Your task to perform on an android device: check android version Image 0: 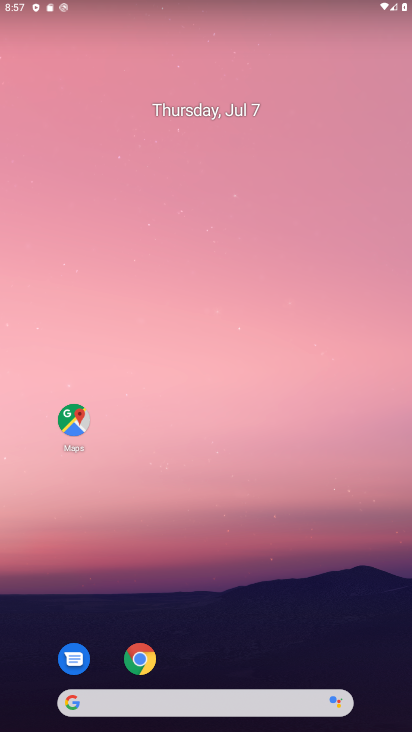
Step 0: drag from (209, 574) to (161, 5)
Your task to perform on an android device: check android version Image 1: 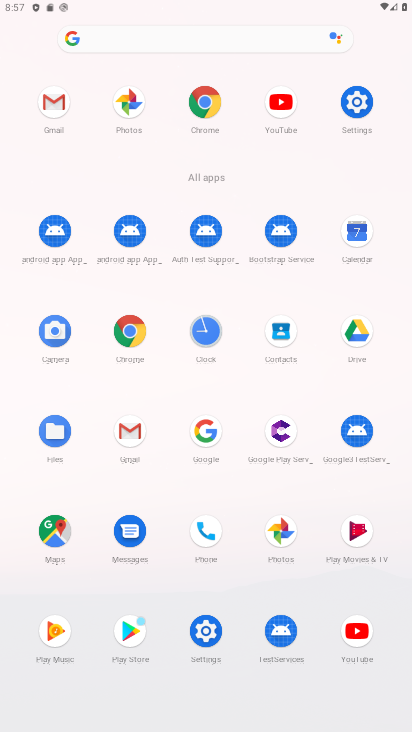
Step 1: click (206, 625)
Your task to perform on an android device: check android version Image 2: 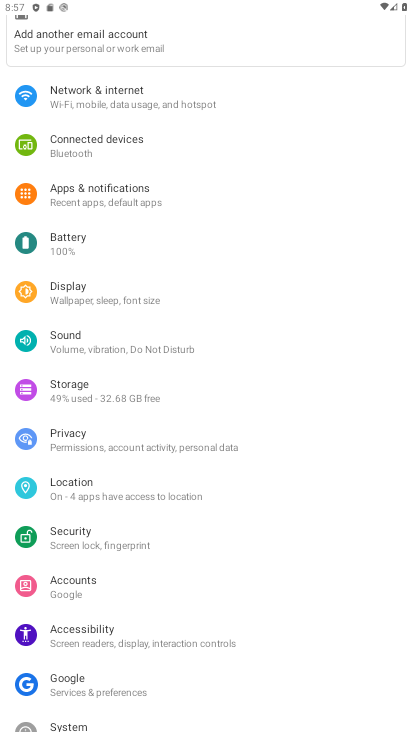
Step 2: drag from (150, 570) to (167, 8)
Your task to perform on an android device: check android version Image 3: 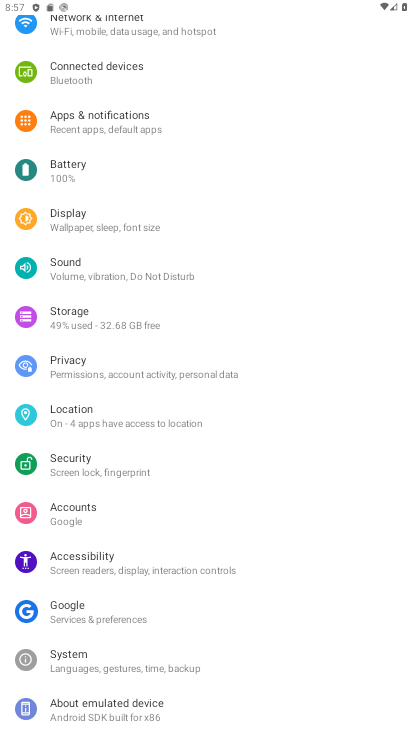
Step 3: click (104, 703)
Your task to perform on an android device: check android version Image 4: 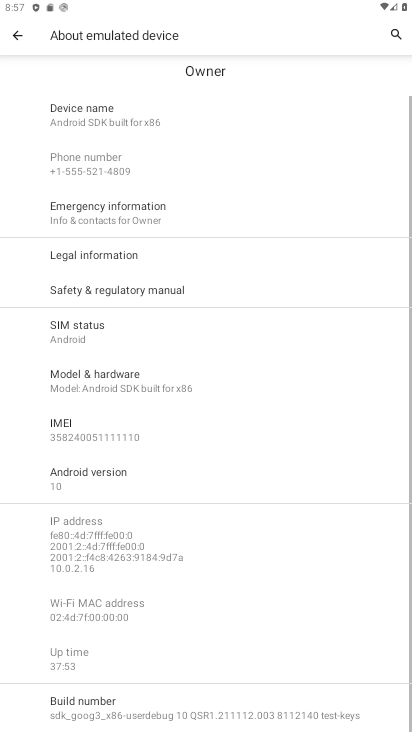
Step 4: click (105, 481)
Your task to perform on an android device: check android version Image 5: 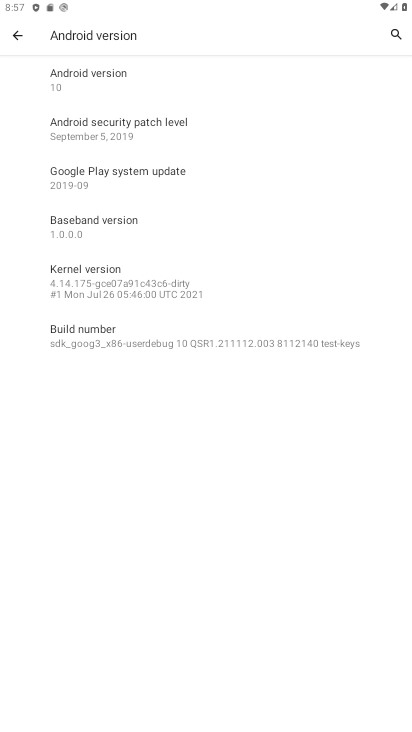
Step 5: task complete